Your task to perform on an android device: turn off javascript in the chrome app Image 0: 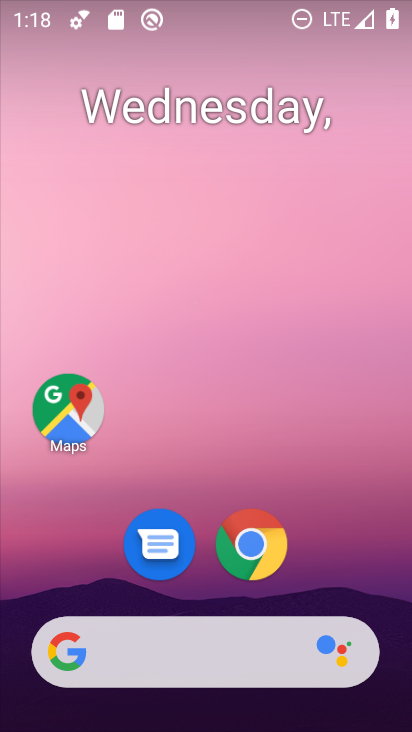
Step 0: click (231, 550)
Your task to perform on an android device: turn off javascript in the chrome app Image 1: 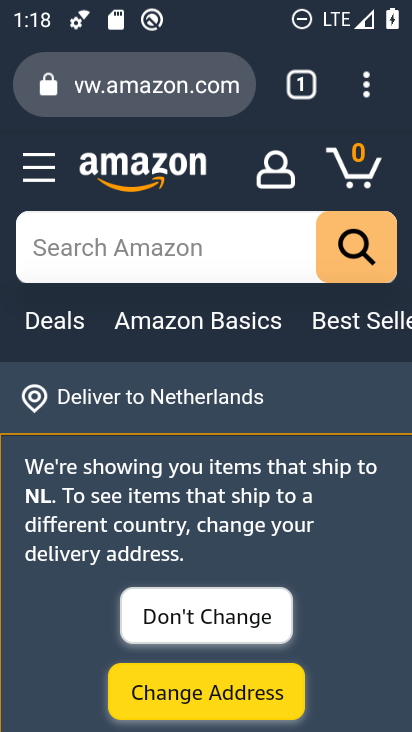
Step 1: click (361, 99)
Your task to perform on an android device: turn off javascript in the chrome app Image 2: 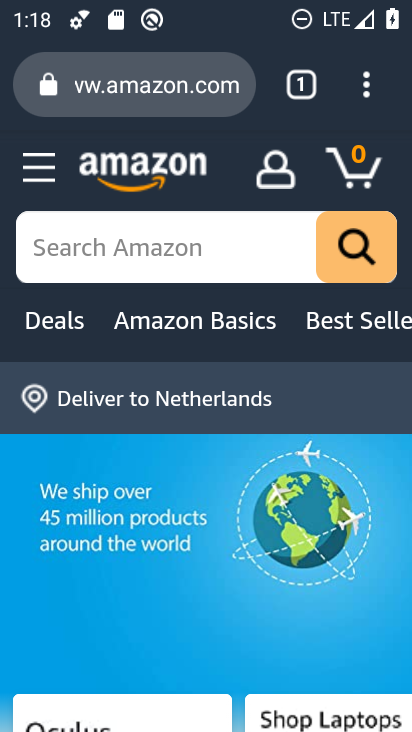
Step 2: click (374, 83)
Your task to perform on an android device: turn off javascript in the chrome app Image 3: 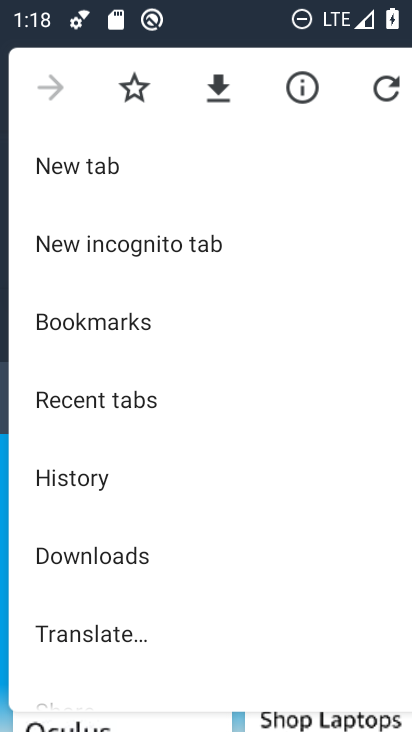
Step 3: drag from (150, 613) to (228, 330)
Your task to perform on an android device: turn off javascript in the chrome app Image 4: 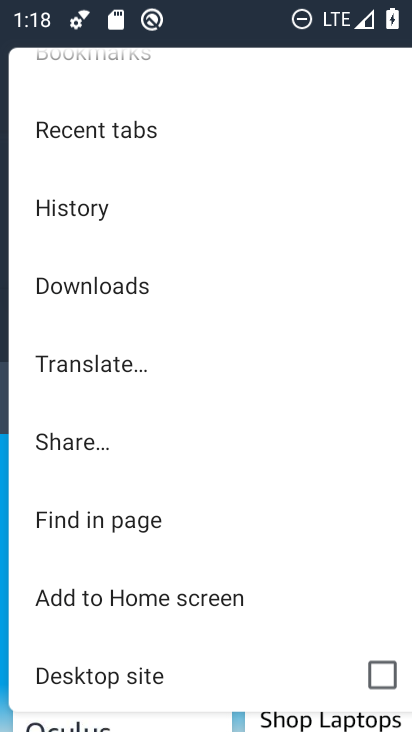
Step 4: drag from (164, 653) to (178, 279)
Your task to perform on an android device: turn off javascript in the chrome app Image 5: 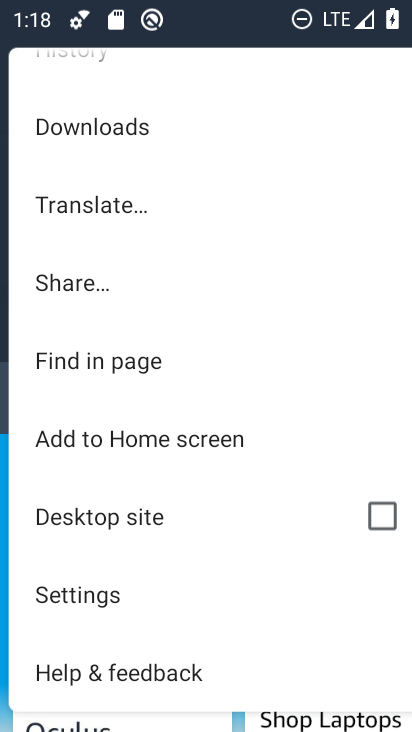
Step 5: click (74, 618)
Your task to perform on an android device: turn off javascript in the chrome app Image 6: 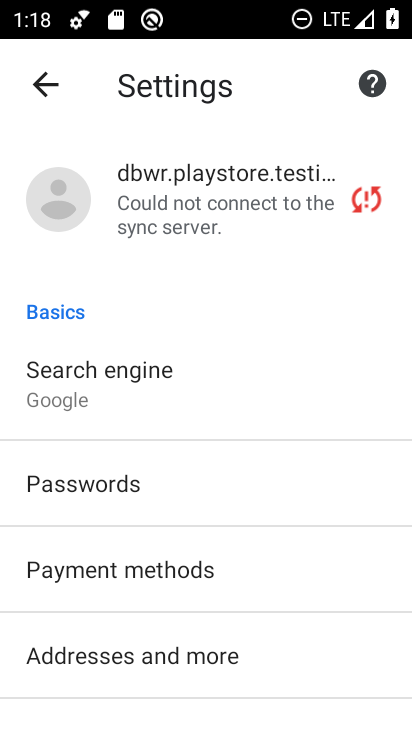
Step 6: drag from (246, 640) to (235, 433)
Your task to perform on an android device: turn off javascript in the chrome app Image 7: 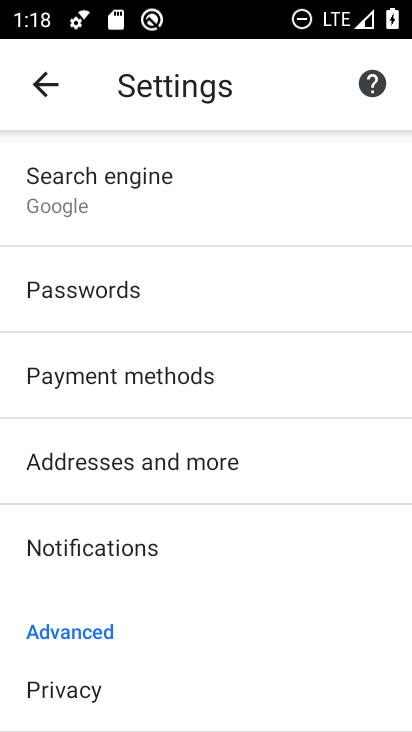
Step 7: drag from (139, 612) to (180, 277)
Your task to perform on an android device: turn off javascript in the chrome app Image 8: 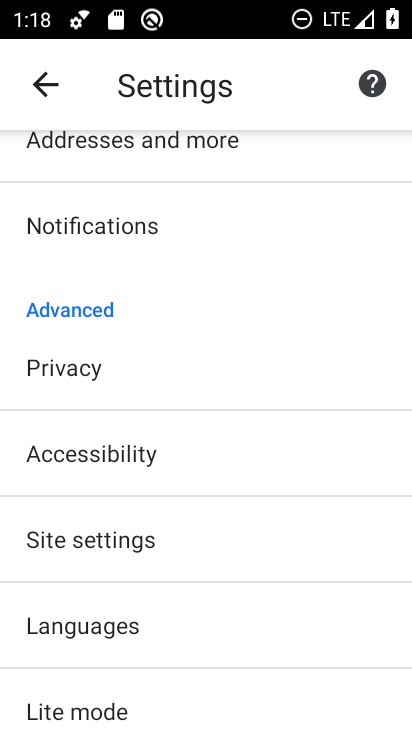
Step 8: click (117, 525)
Your task to perform on an android device: turn off javascript in the chrome app Image 9: 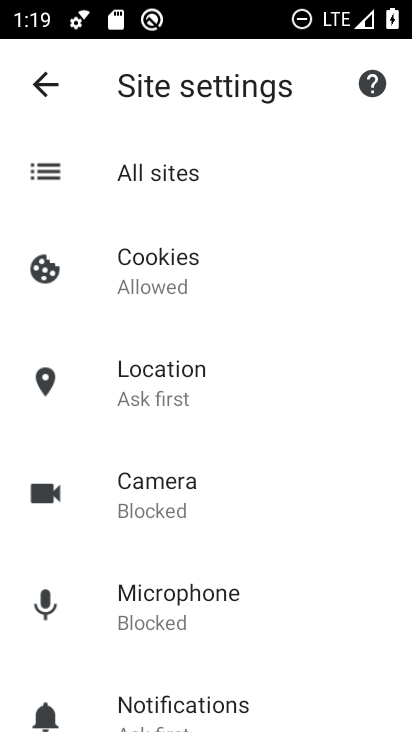
Step 9: drag from (192, 442) to (202, 335)
Your task to perform on an android device: turn off javascript in the chrome app Image 10: 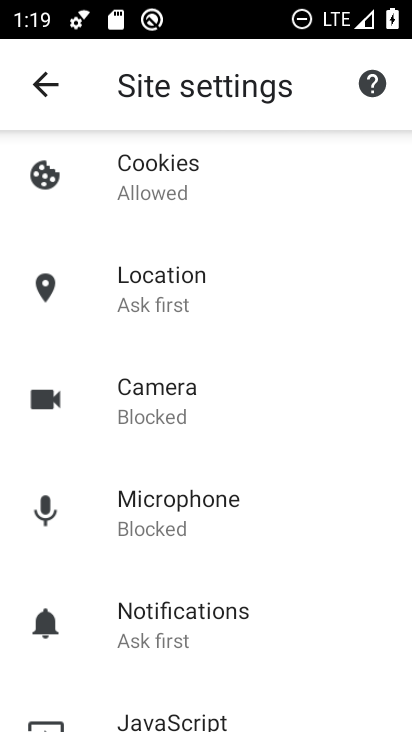
Step 10: drag from (255, 589) to (256, 284)
Your task to perform on an android device: turn off javascript in the chrome app Image 11: 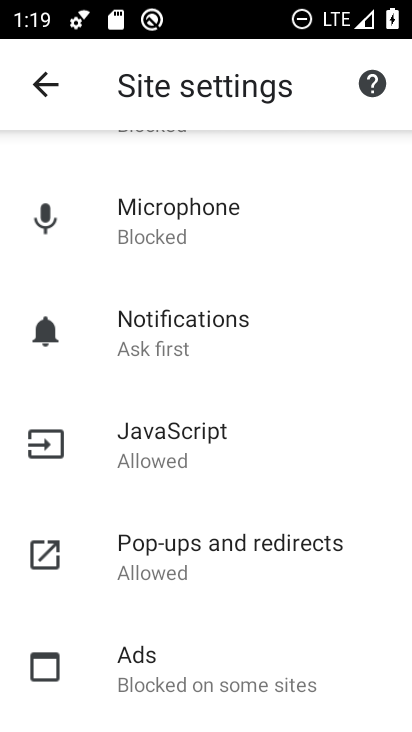
Step 11: click (177, 459)
Your task to perform on an android device: turn off javascript in the chrome app Image 12: 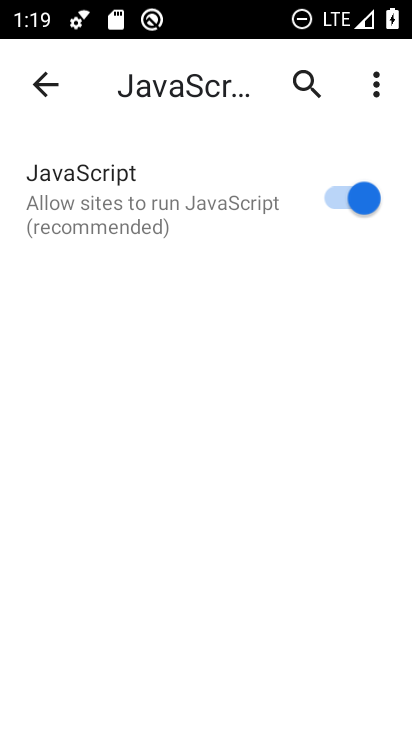
Step 12: click (360, 201)
Your task to perform on an android device: turn off javascript in the chrome app Image 13: 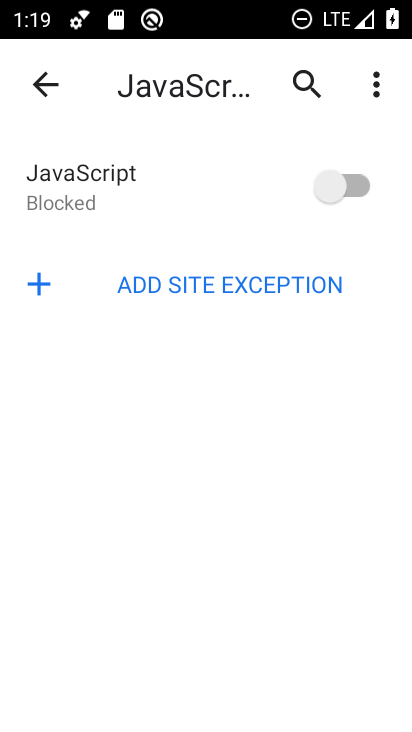
Step 13: task complete